Your task to perform on an android device: stop showing notifications on the lock screen Image 0: 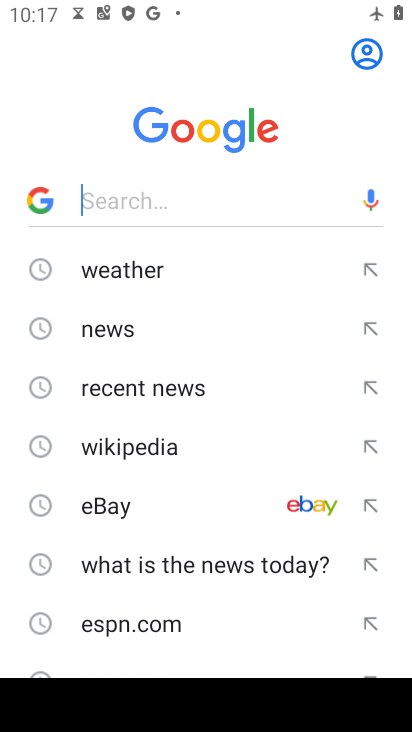
Step 0: press back button
Your task to perform on an android device: stop showing notifications on the lock screen Image 1: 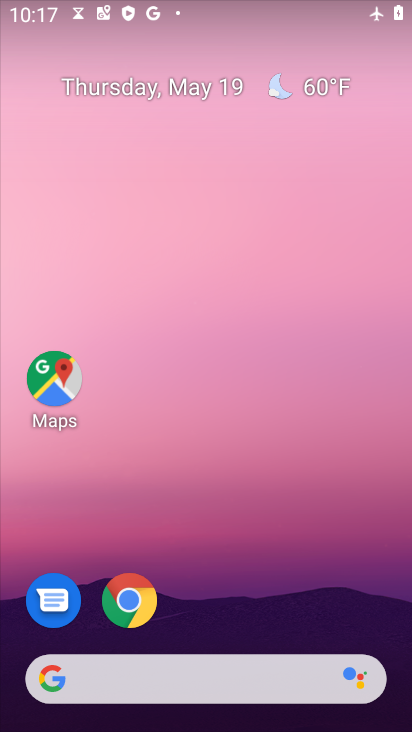
Step 1: drag from (236, 581) to (191, 11)
Your task to perform on an android device: stop showing notifications on the lock screen Image 2: 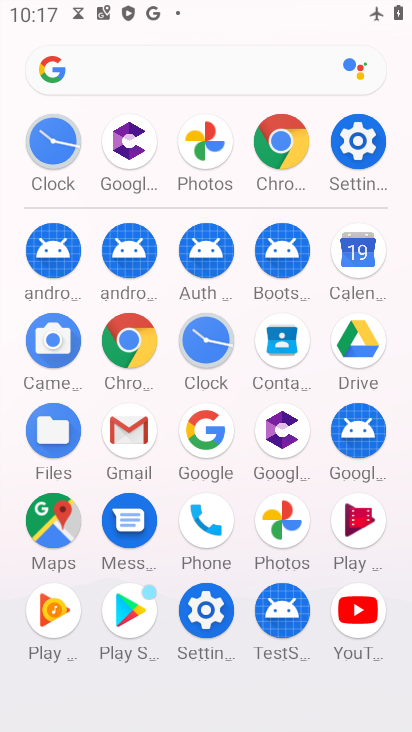
Step 2: drag from (10, 557) to (21, 241)
Your task to perform on an android device: stop showing notifications on the lock screen Image 3: 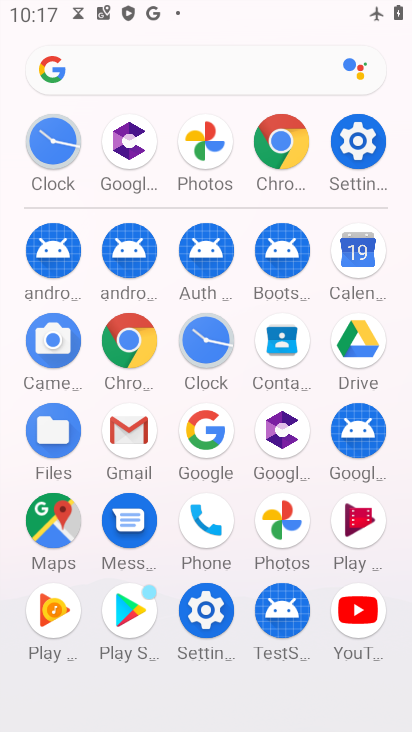
Step 3: click (203, 614)
Your task to perform on an android device: stop showing notifications on the lock screen Image 4: 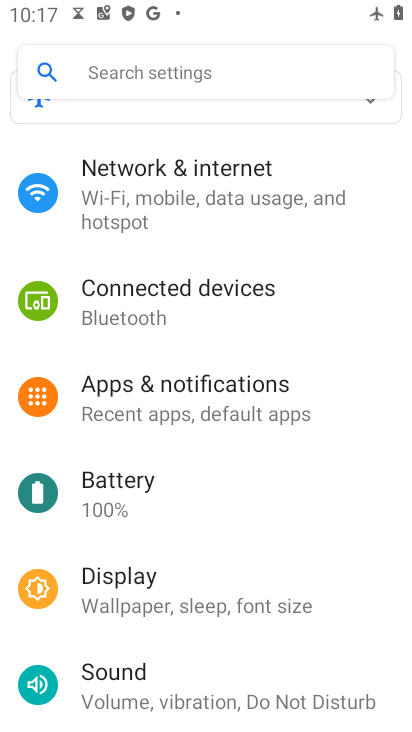
Step 4: click (218, 388)
Your task to perform on an android device: stop showing notifications on the lock screen Image 5: 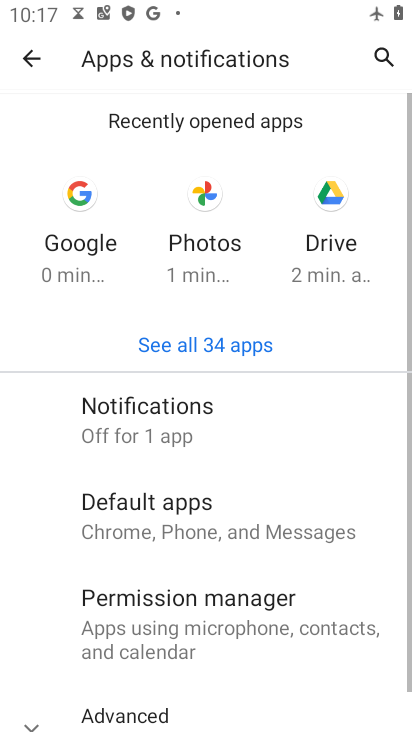
Step 5: click (196, 440)
Your task to perform on an android device: stop showing notifications on the lock screen Image 6: 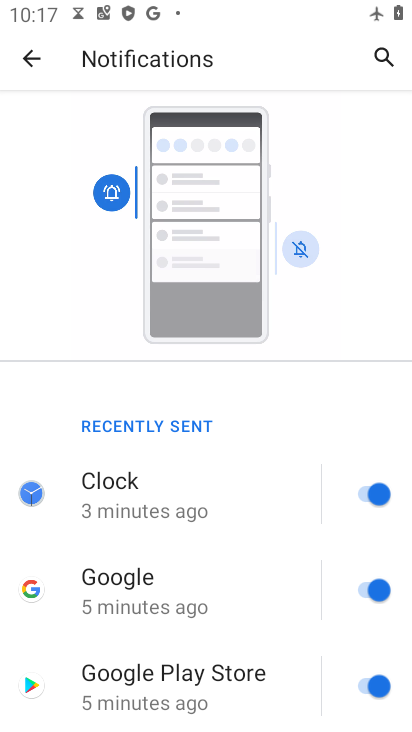
Step 6: drag from (217, 607) to (247, 89)
Your task to perform on an android device: stop showing notifications on the lock screen Image 7: 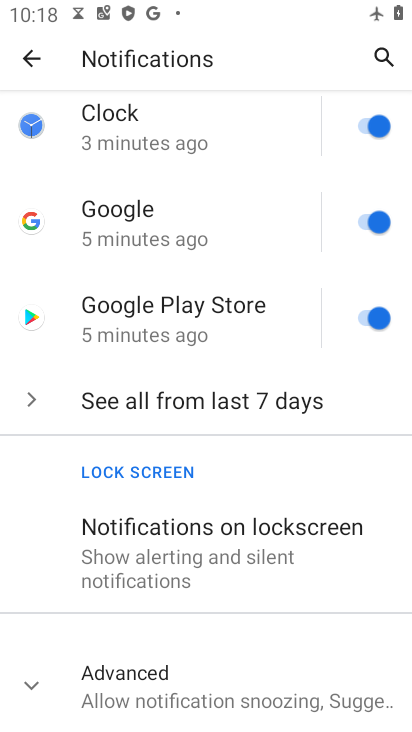
Step 7: click (267, 542)
Your task to perform on an android device: stop showing notifications on the lock screen Image 8: 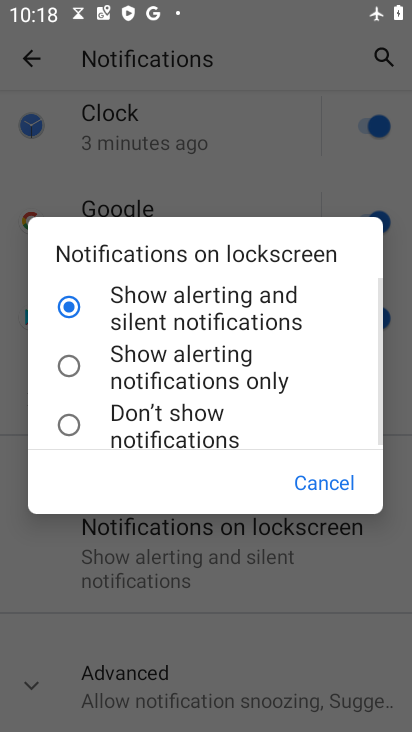
Step 8: click (182, 325)
Your task to perform on an android device: stop showing notifications on the lock screen Image 9: 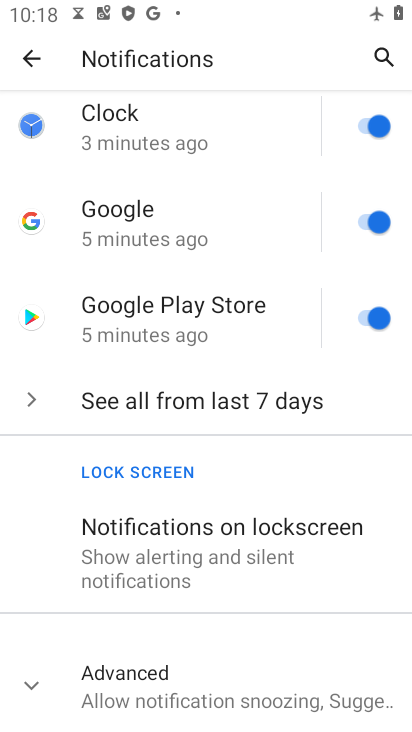
Step 9: click (44, 699)
Your task to perform on an android device: stop showing notifications on the lock screen Image 10: 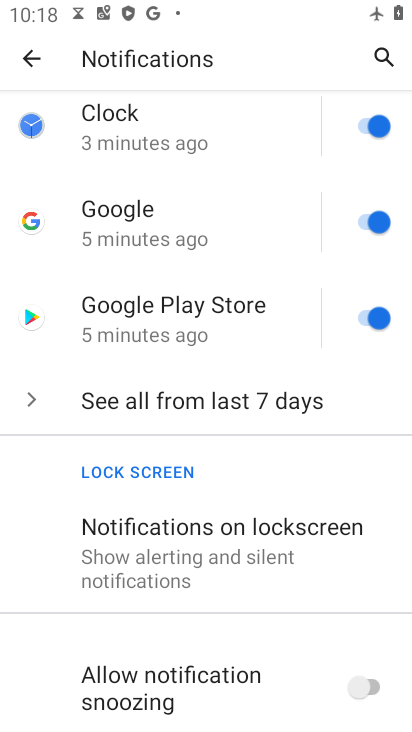
Step 10: task complete